Your task to perform on an android device: Open display settings Image 0: 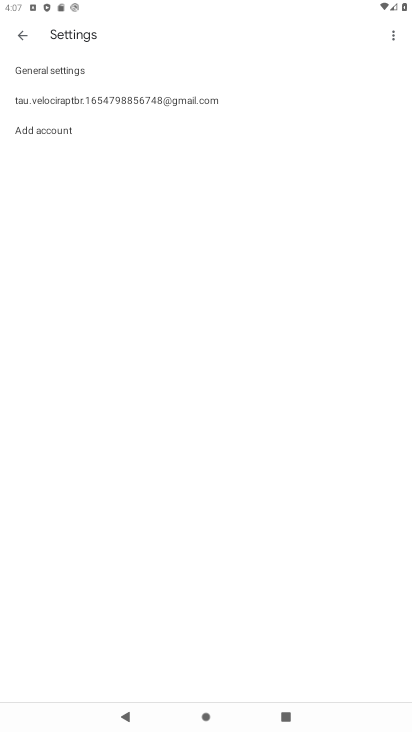
Step 0: press home button
Your task to perform on an android device: Open display settings Image 1: 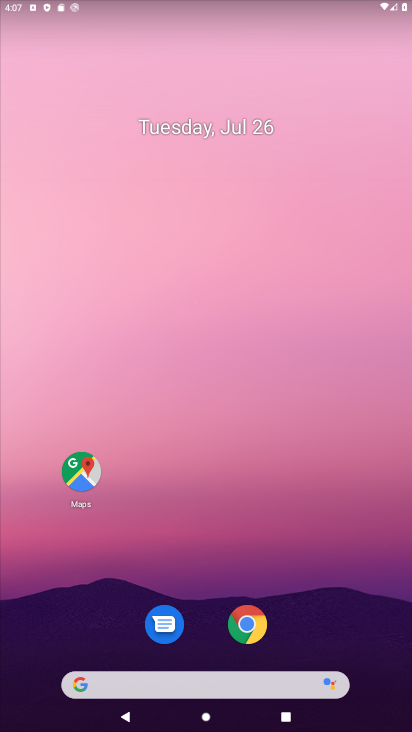
Step 1: drag from (242, 633) to (400, 4)
Your task to perform on an android device: Open display settings Image 2: 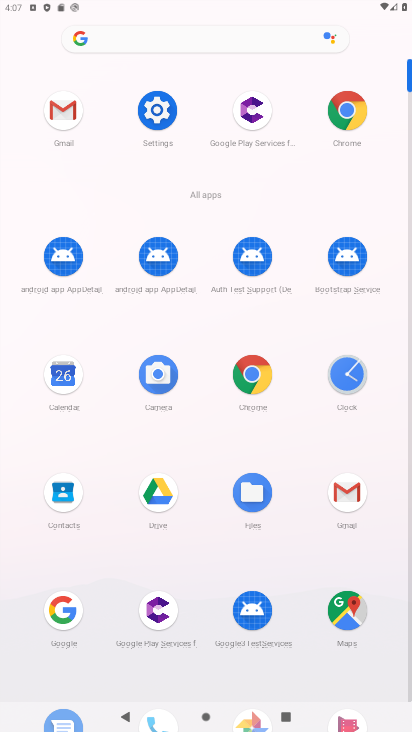
Step 2: click (166, 131)
Your task to perform on an android device: Open display settings Image 3: 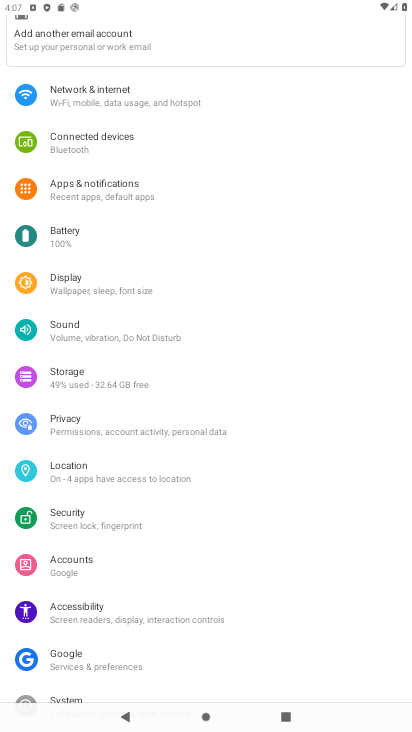
Step 3: click (100, 291)
Your task to perform on an android device: Open display settings Image 4: 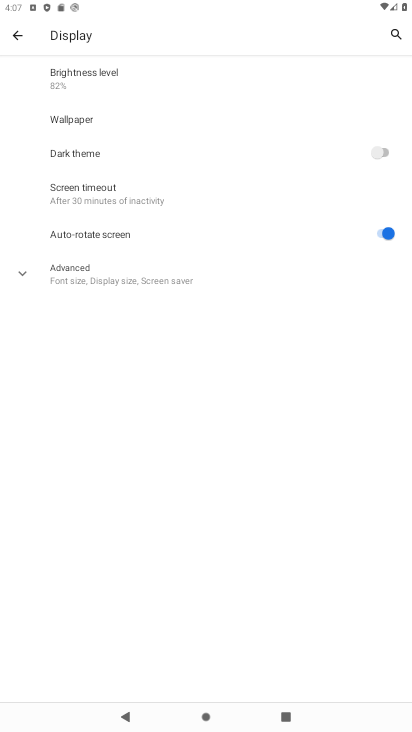
Step 4: task complete